Your task to perform on an android device: check the backup settings in the google photos Image 0: 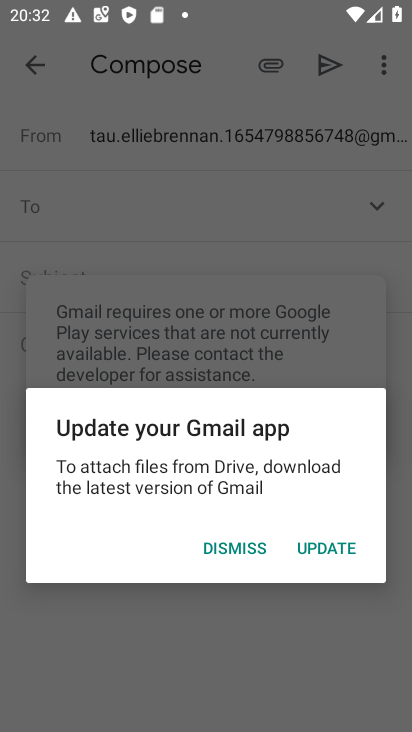
Step 0: press home button
Your task to perform on an android device: check the backup settings in the google photos Image 1: 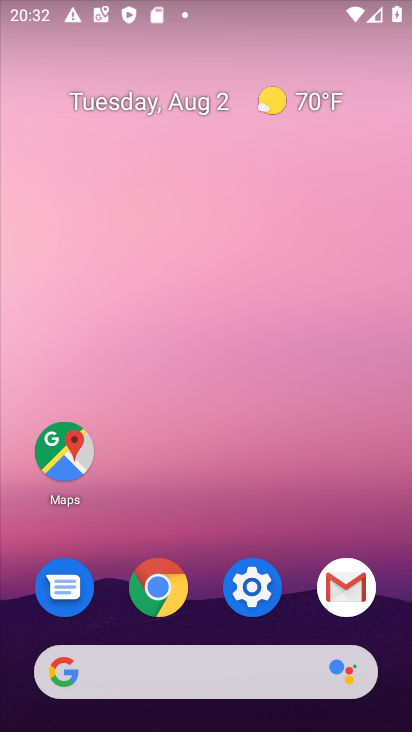
Step 1: drag from (292, 700) to (316, 240)
Your task to perform on an android device: check the backup settings in the google photos Image 2: 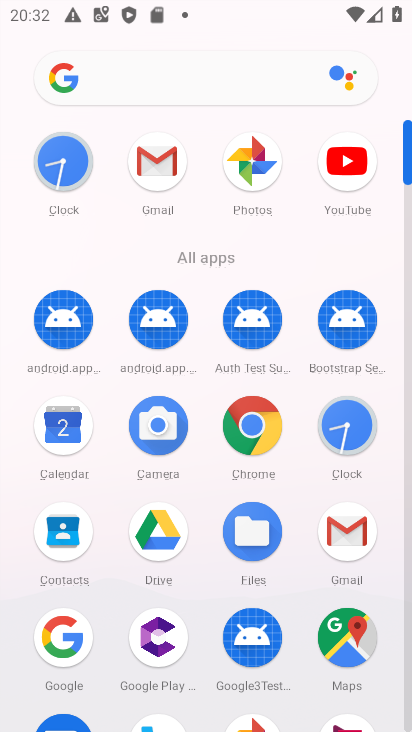
Step 2: drag from (225, 556) to (241, 457)
Your task to perform on an android device: check the backup settings in the google photos Image 3: 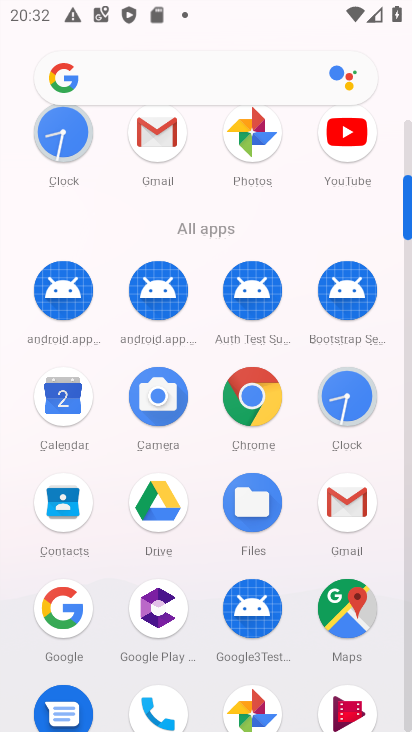
Step 3: click (255, 699)
Your task to perform on an android device: check the backup settings in the google photos Image 4: 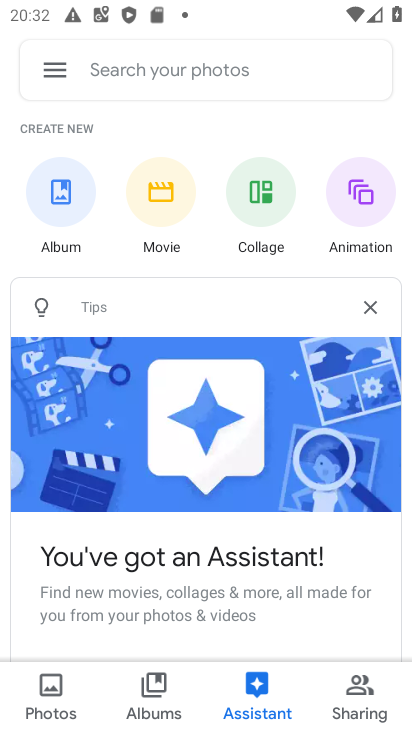
Step 4: click (36, 72)
Your task to perform on an android device: check the backup settings in the google photos Image 5: 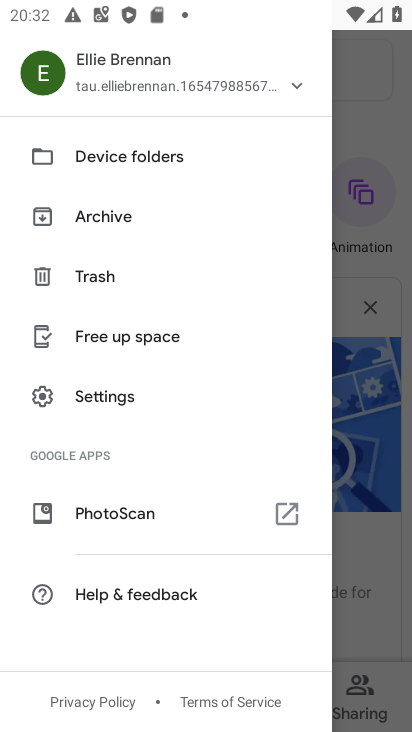
Step 5: click (107, 400)
Your task to perform on an android device: check the backup settings in the google photos Image 6: 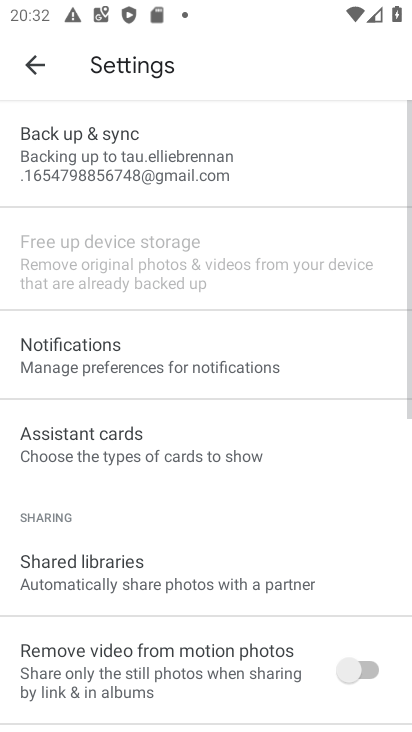
Step 6: click (95, 132)
Your task to perform on an android device: check the backup settings in the google photos Image 7: 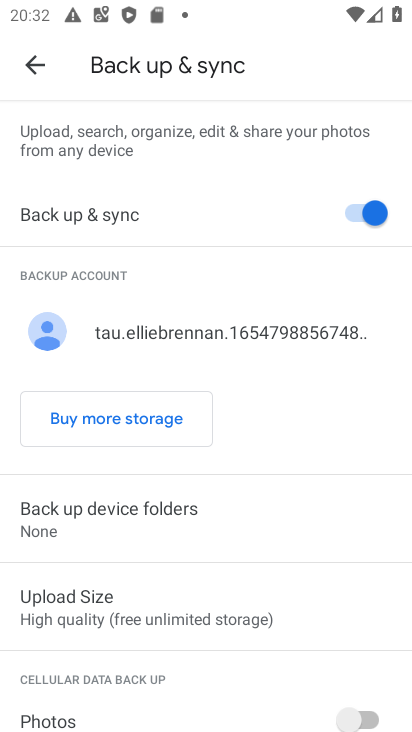
Step 7: task complete